Your task to perform on an android device: Go to accessibility settings Image 0: 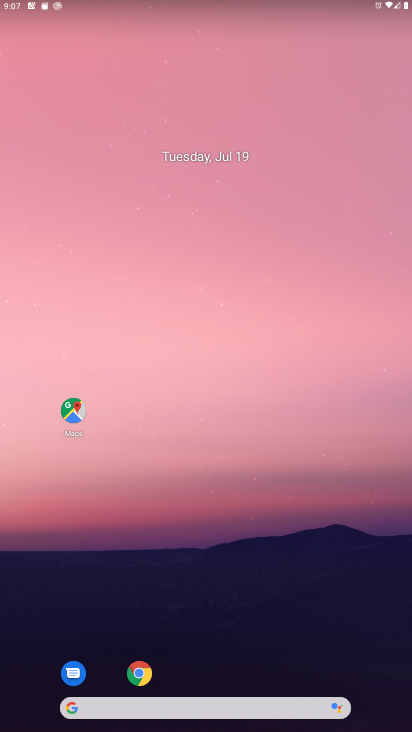
Step 0: drag from (352, 656) to (301, 36)
Your task to perform on an android device: Go to accessibility settings Image 1: 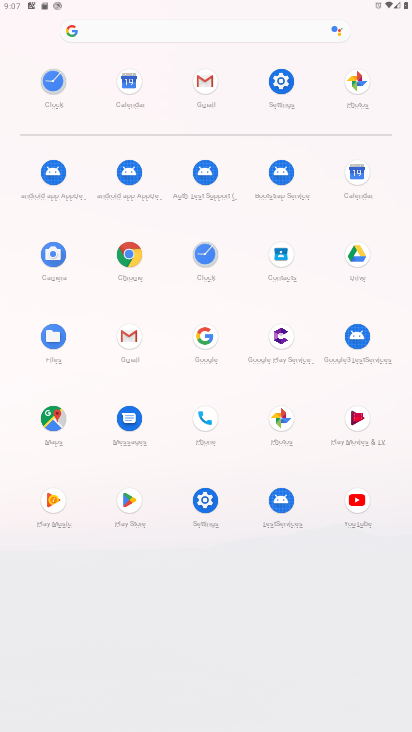
Step 1: click (206, 503)
Your task to perform on an android device: Go to accessibility settings Image 2: 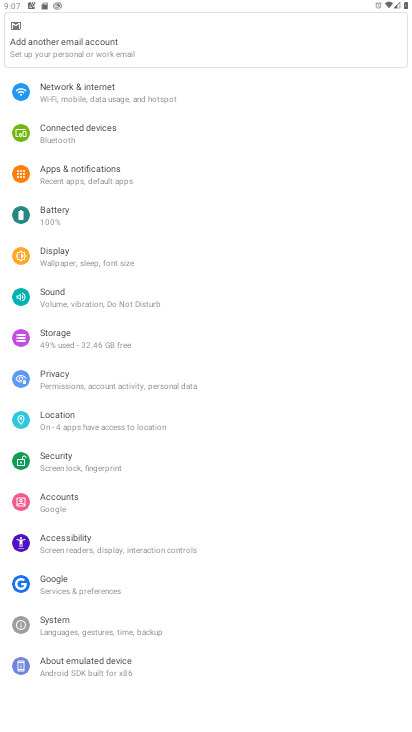
Step 2: click (47, 541)
Your task to perform on an android device: Go to accessibility settings Image 3: 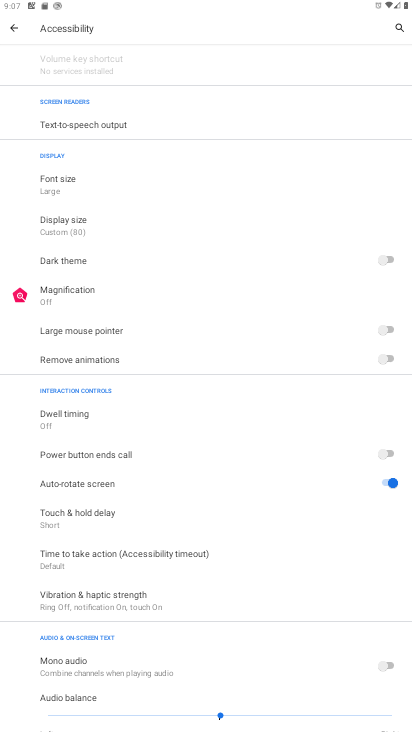
Step 3: task complete